Your task to perform on an android device: Go to Android settings Image 0: 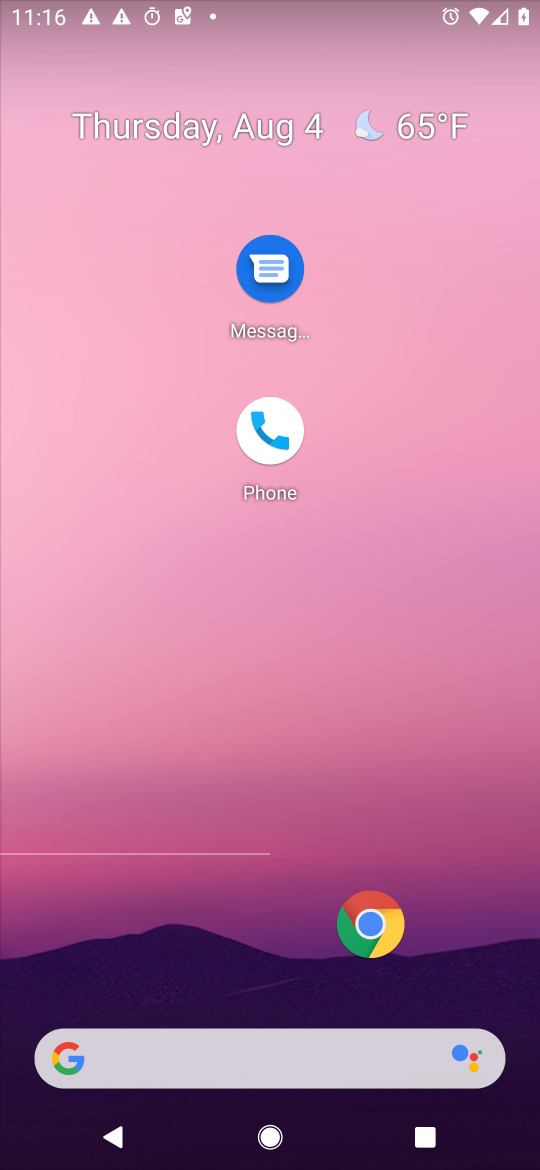
Step 0: drag from (289, 507) to (283, 186)
Your task to perform on an android device: Go to Android settings Image 1: 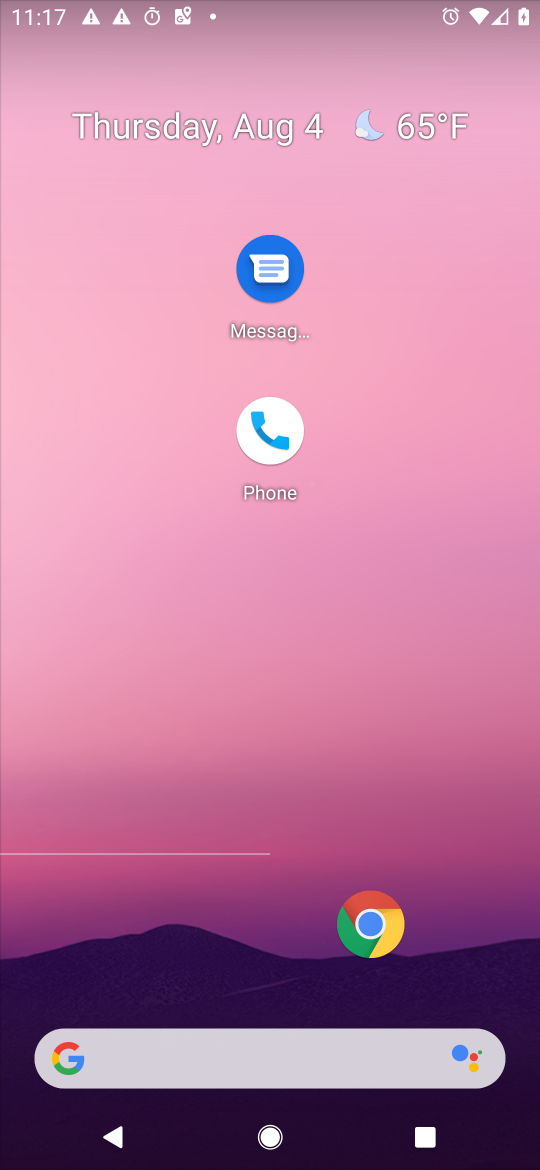
Step 1: drag from (270, 850) to (301, 247)
Your task to perform on an android device: Go to Android settings Image 2: 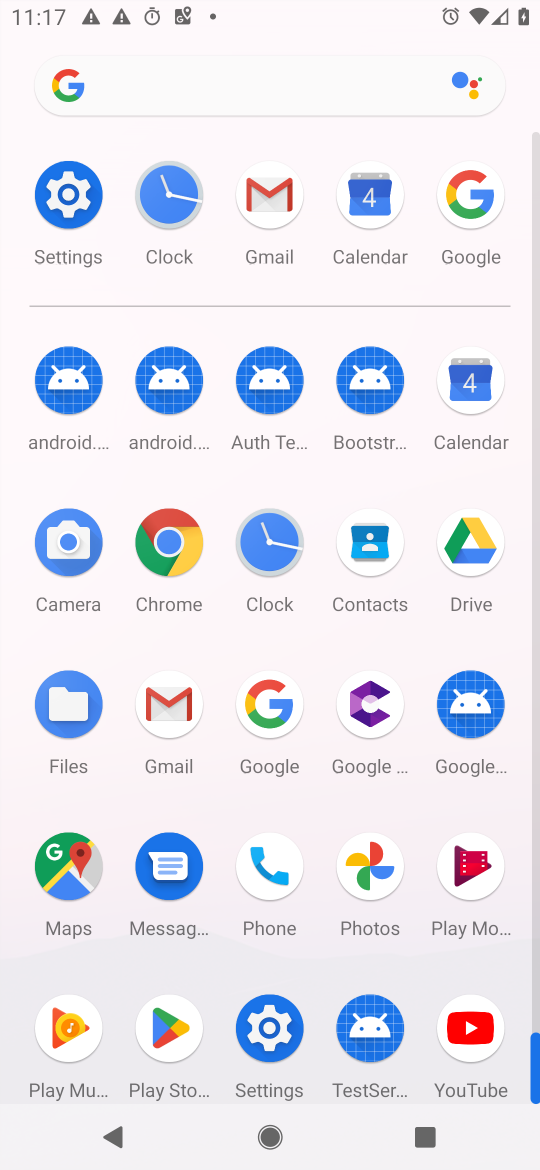
Step 2: click (289, 1019)
Your task to perform on an android device: Go to Android settings Image 3: 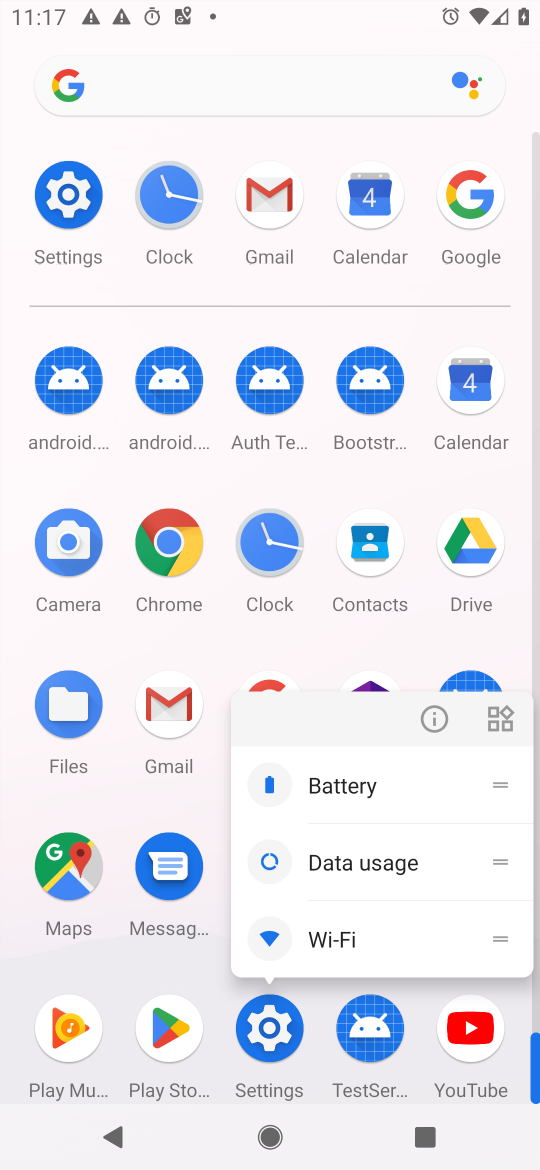
Step 3: click (424, 716)
Your task to perform on an android device: Go to Android settings Image 4: 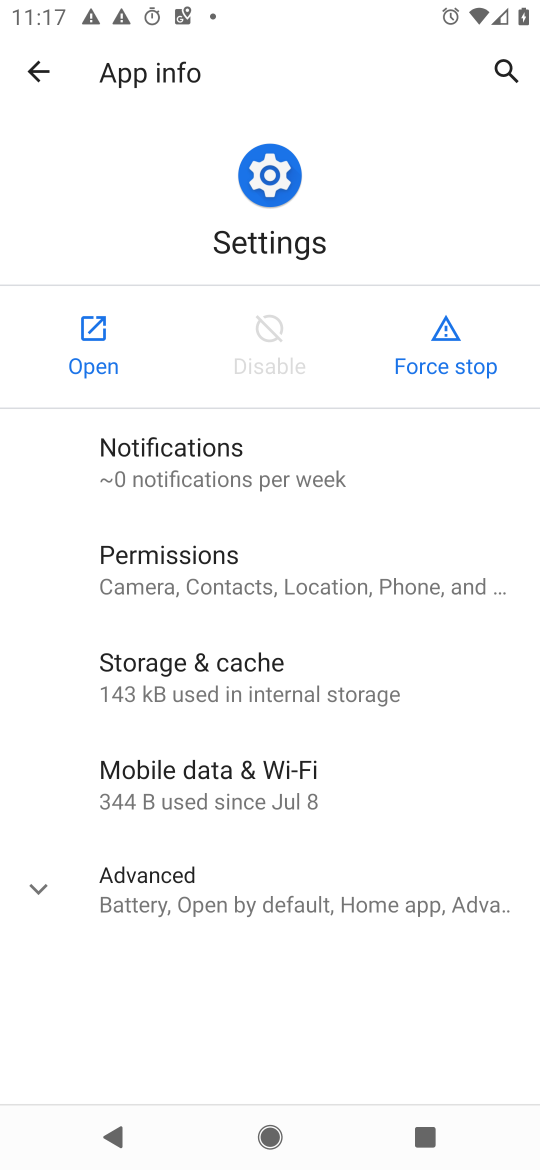
Step 4: click (112, 338)
Your task to perform on an android device: Go to Android settings Image 5: 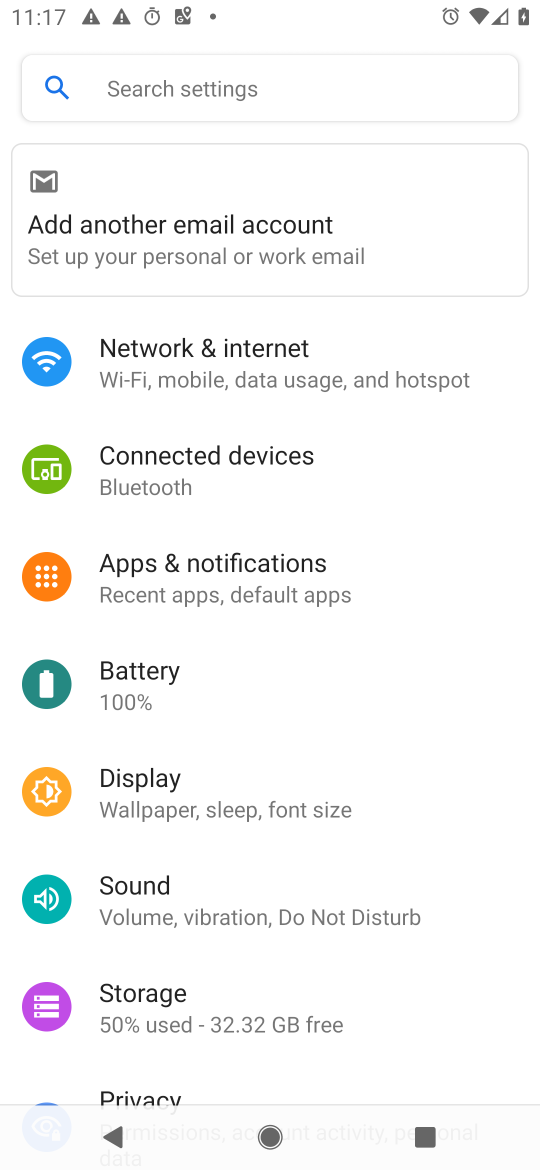
Step 5: drag from (255, 1000) to (172, 152)
Your task to perform on an android device: Go to Android settings Image 6: 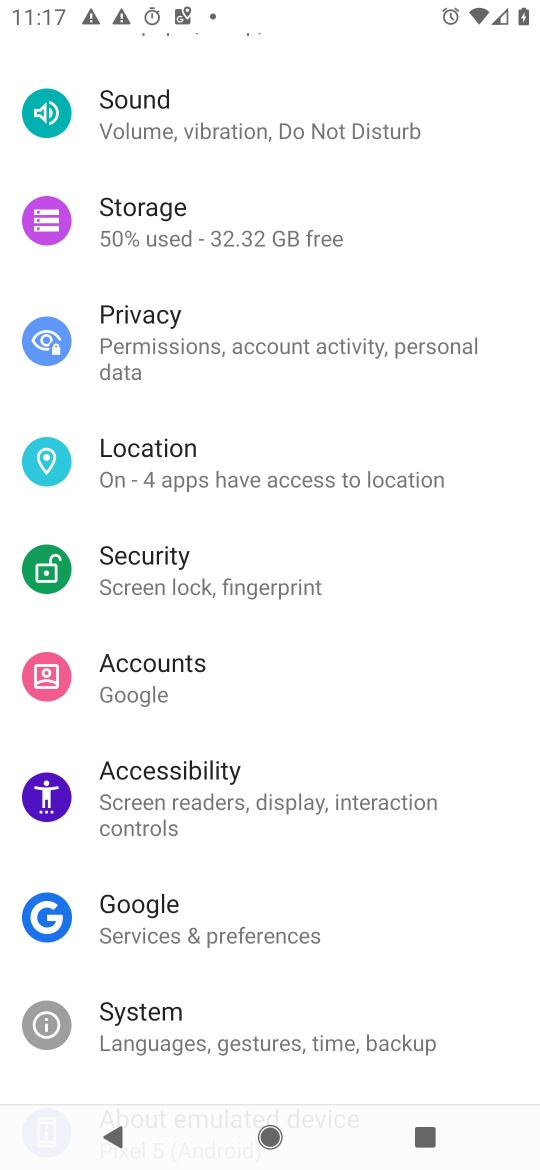
Step 6: drag from (312, 1070) to (301, 423)
Your task to perform on an android device: Go to Android settings Image 7: 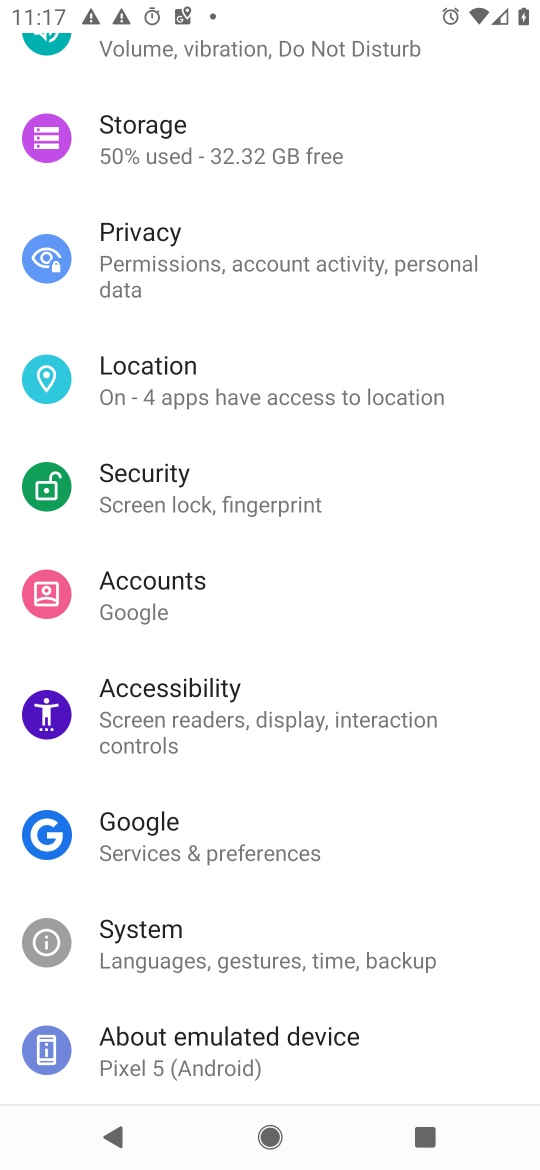
Step 7: click (180, 1042)
Your task to perform on an android device: Go to Android settings Image 8: 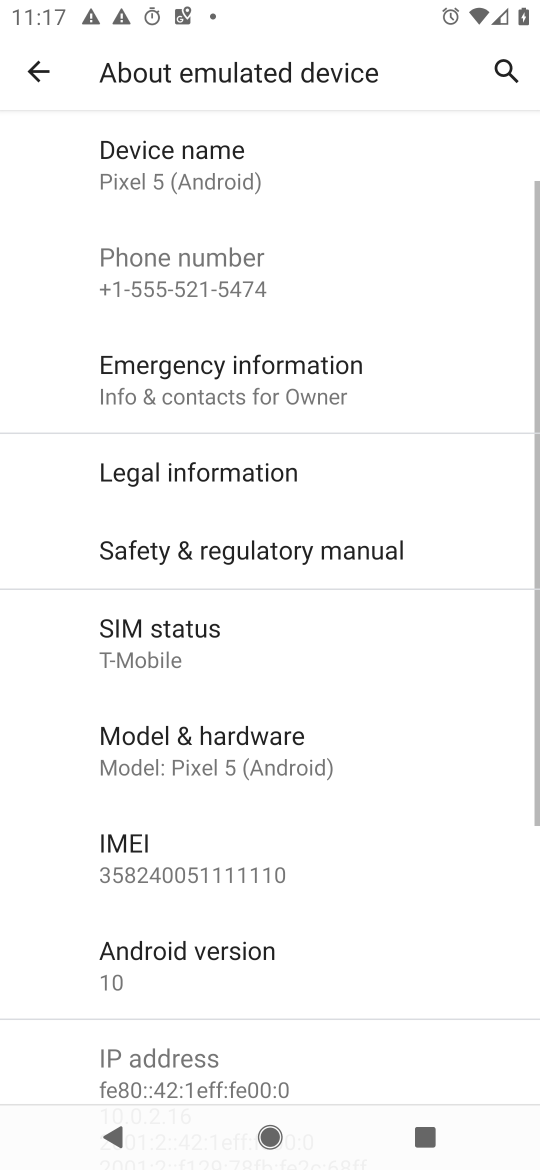
Step 8: click (185, 958)
Your task to perform on an android device: Go to Android settings Image 9: 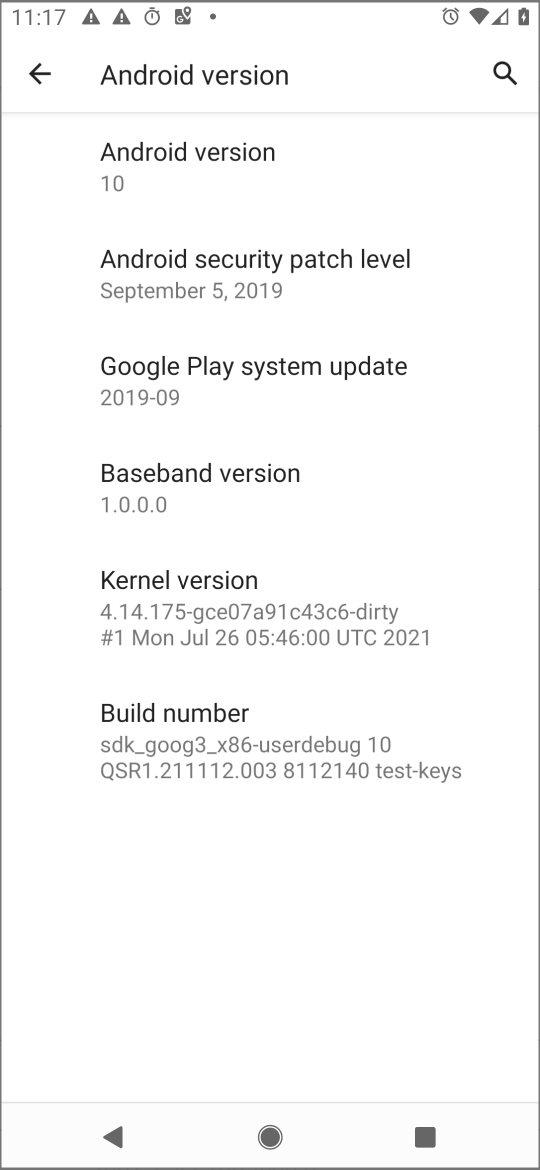
Step 9: drag from (228, 941) to (284, 316)
Your task to perform on an android device: Go to Android settings Image 10: 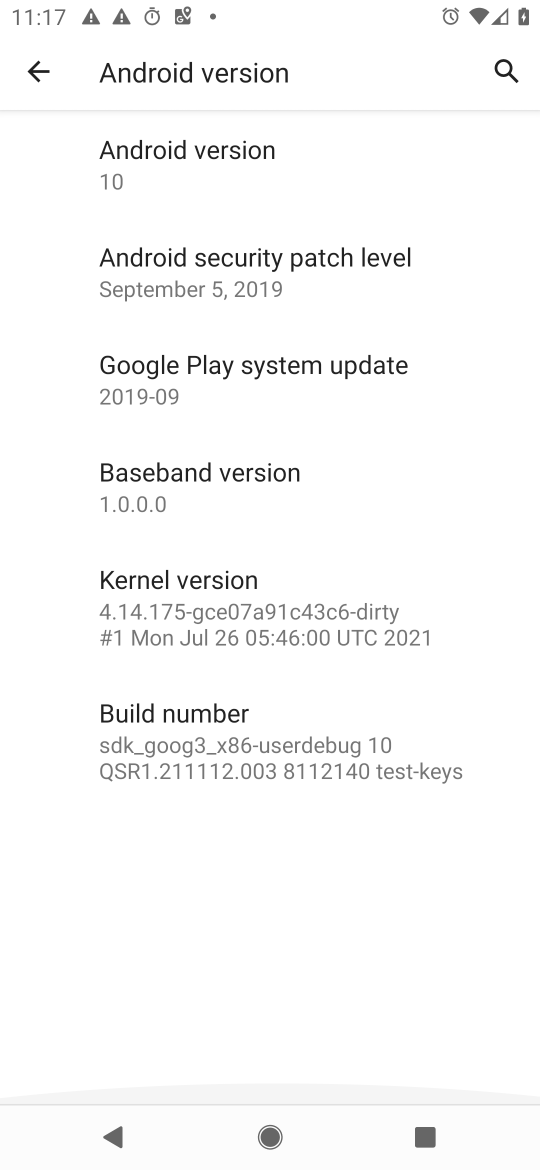
Step 10: click (273, 160)
Your task to perform on an android device: Go to Android settings Image 11: 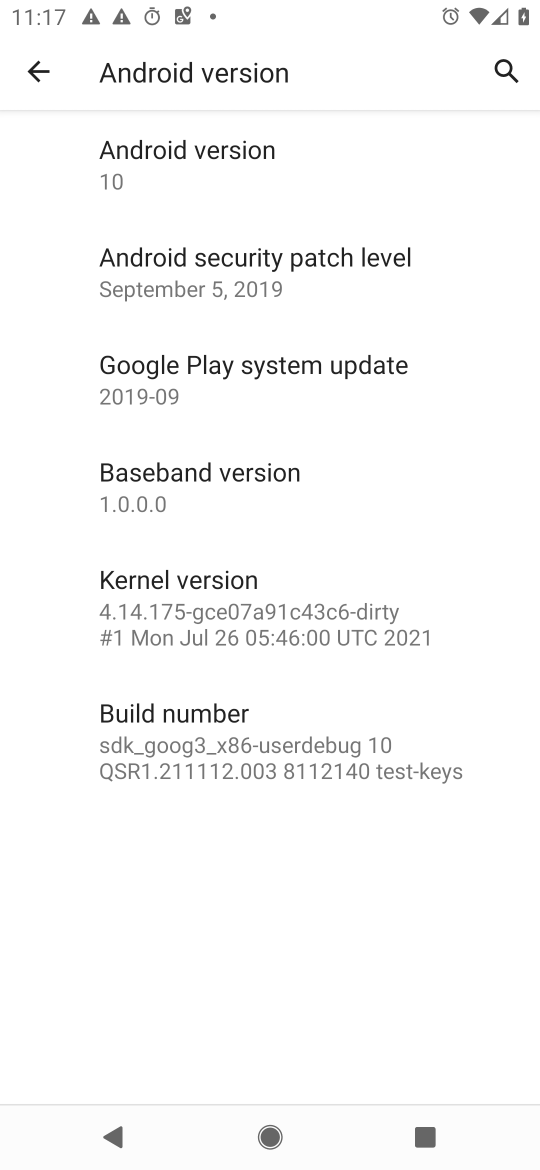
Step 11: task complete